Your task to perform on an android device: Show me popular videos on Youtube Image 0: 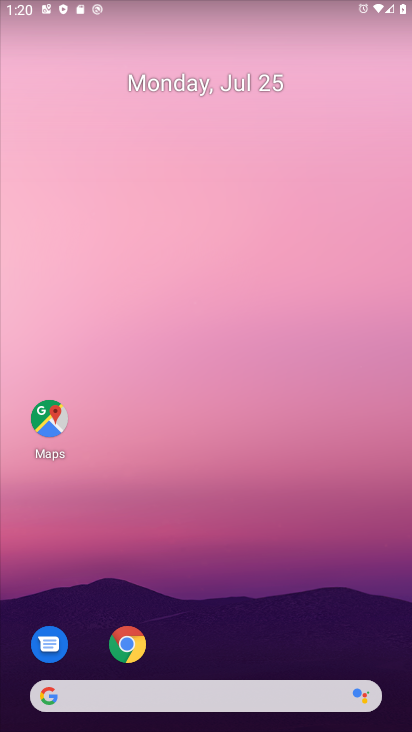
Step 0: drag from (339, 641) to (191, 27)
Your task to perform on an android device: Show me popular videos on Youtube Image 1: 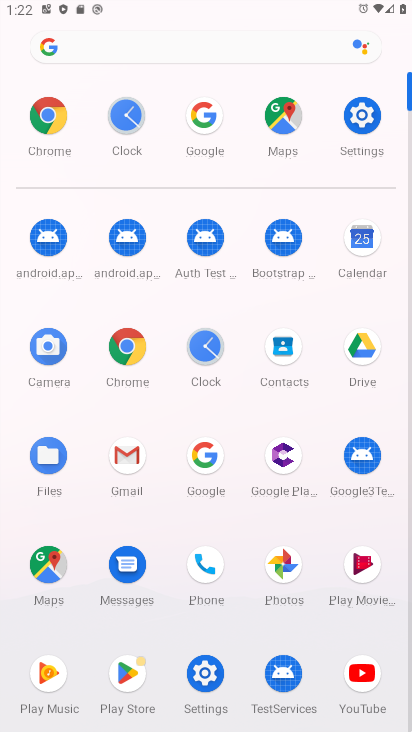
Step 1: click (351, 673)
Your task to perform on an android device: Show me popular videos on Youtube Image 2: 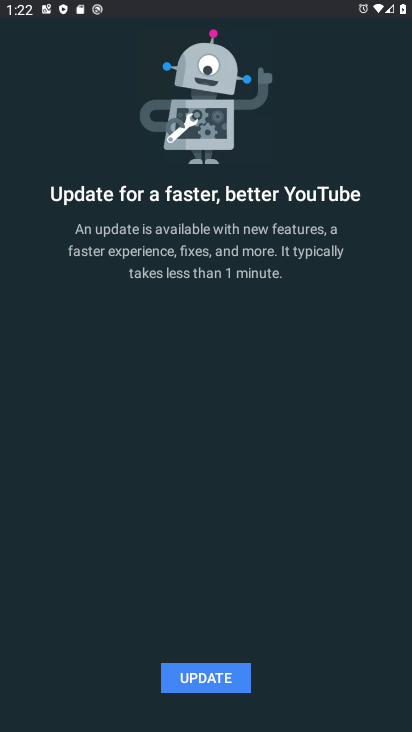
Step 2: task complete